Your task to perform on an android device: open app "Lyft - Rideshare, Bikes, Scooters & Transit" (install if not already installed) and go to login screen Image 0: 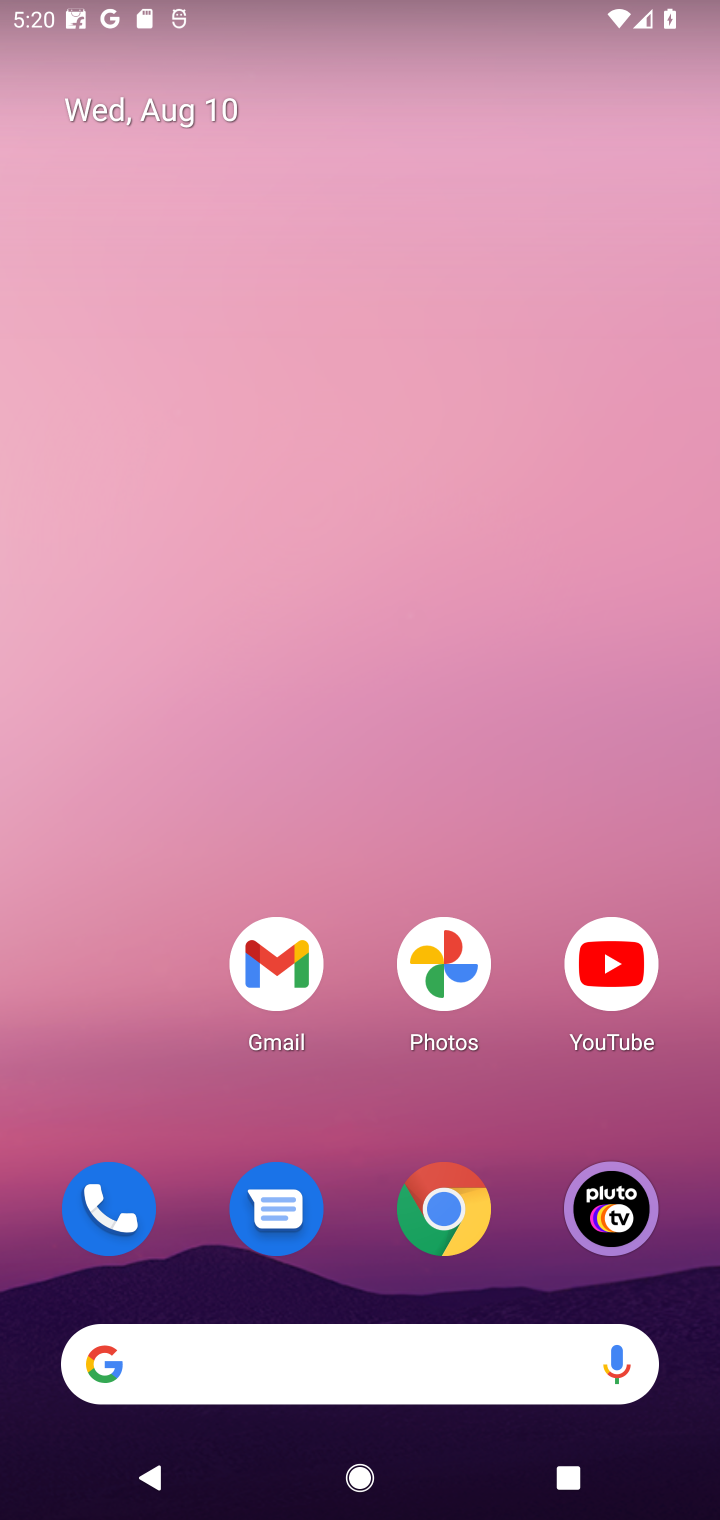
Step 0: drag from (220, 1293) to (207, 400)
Your task to perform on an android device: open app "Lyft - Rideshare, Bikes, Scooters & Transit" (install if not already installed) and go to login screen Image 1: 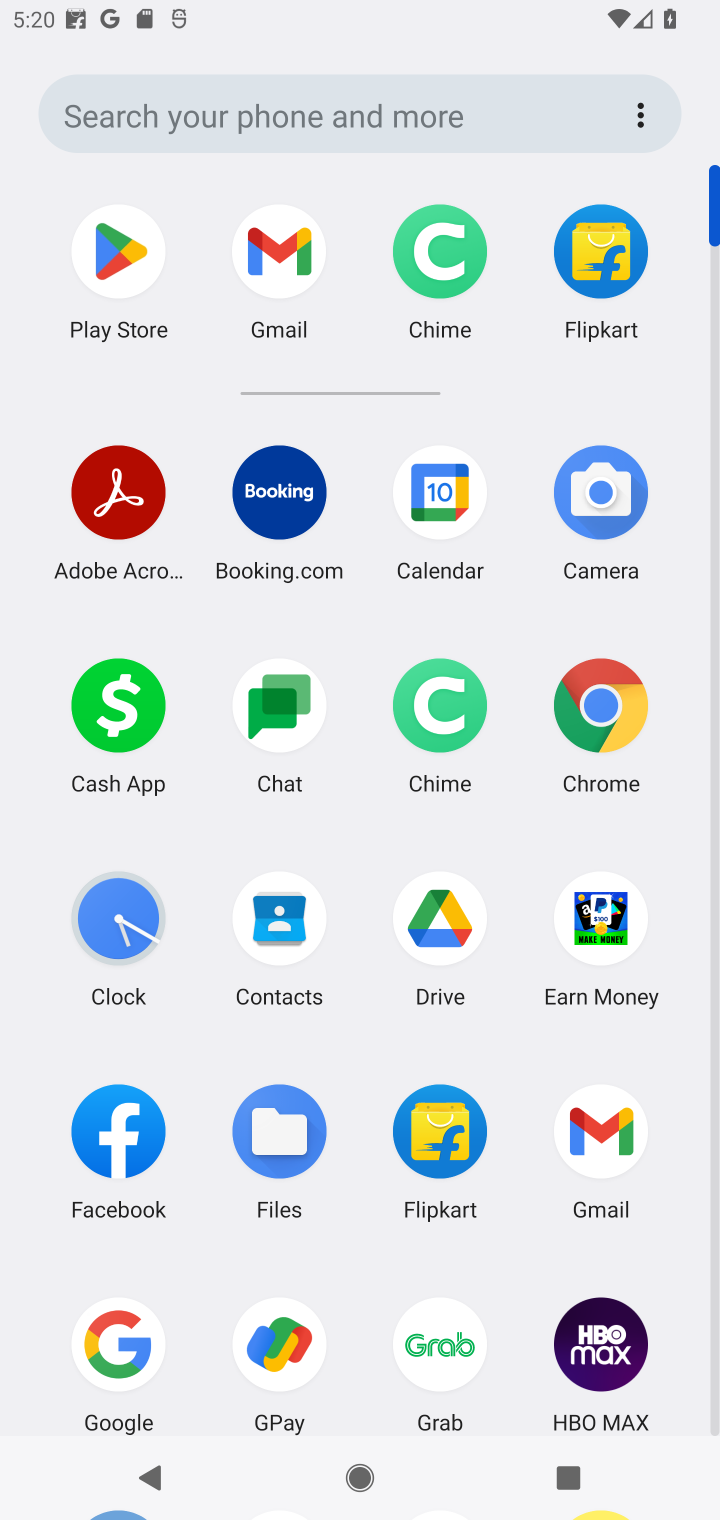
Step 1: click (393, 118)
Your task to perform on an android device: open app "Lyft - Rideshare, Bikes, Scooters & Transit" (install if not already installed) and go to login screen Image 2: 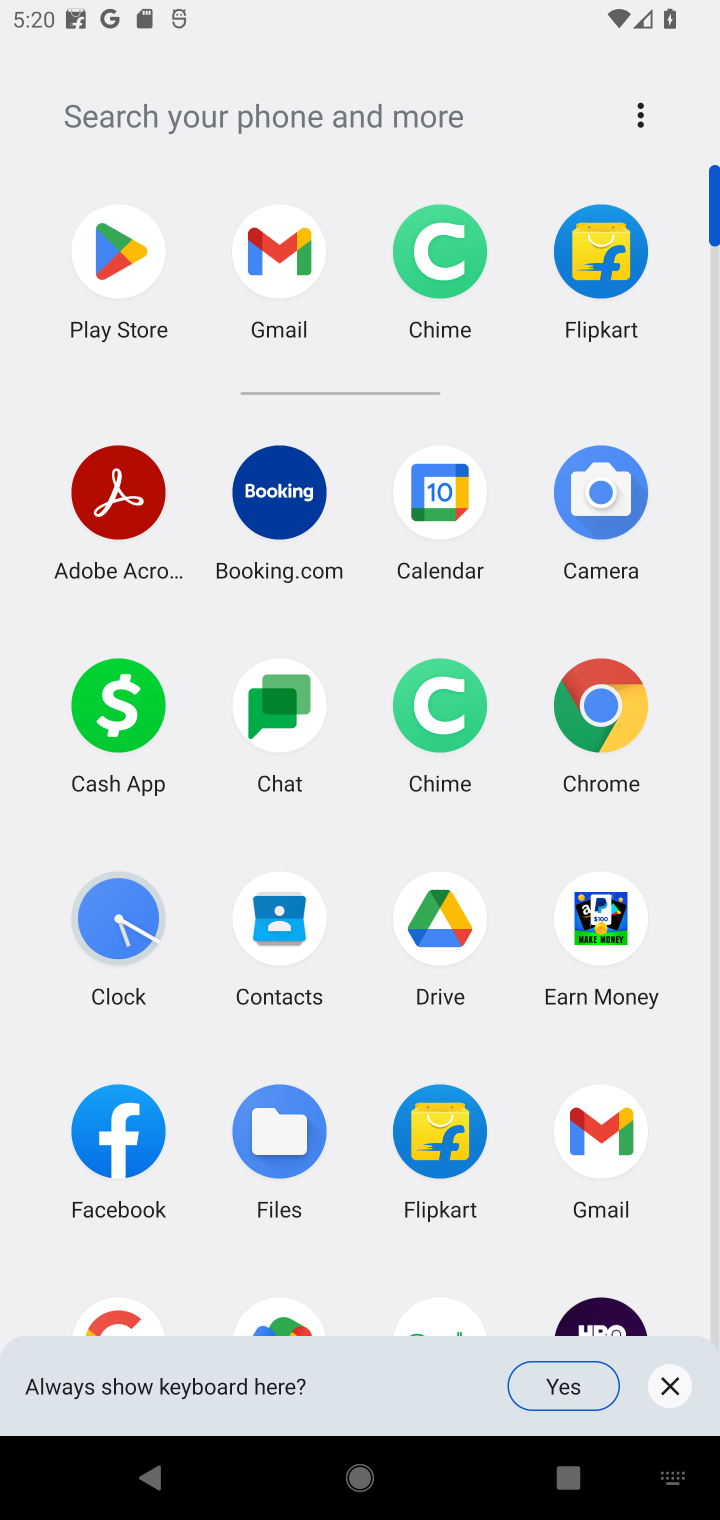
Step 2: type "lyt"
Your task to perform on an android device: open app "Lyft - Rideshare, Bikes, Scooters & Transit" (install if not already installed) and go to login screen Image 3: 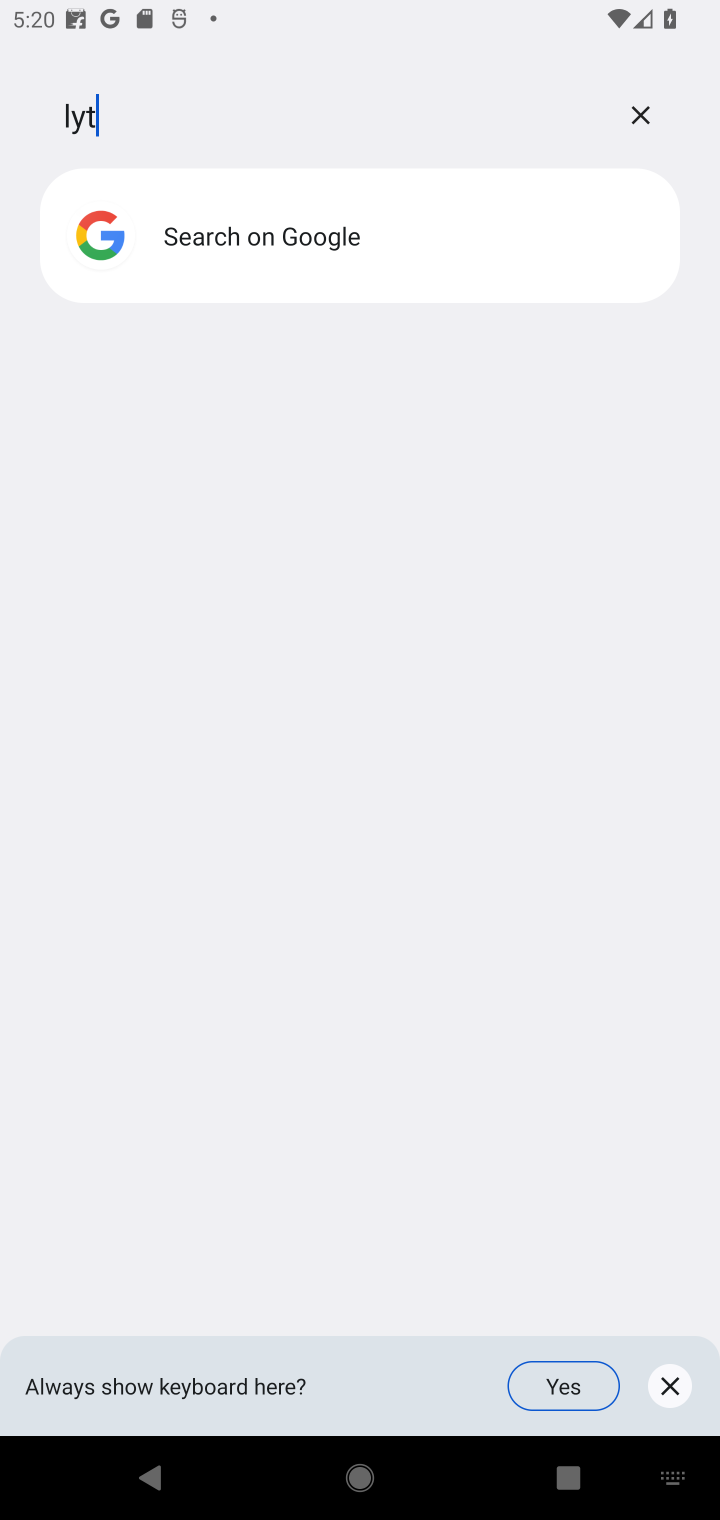
Step 3: task complete